Your task to perform on an android device: open the mobile data screen to see how much data has been used Image 0: 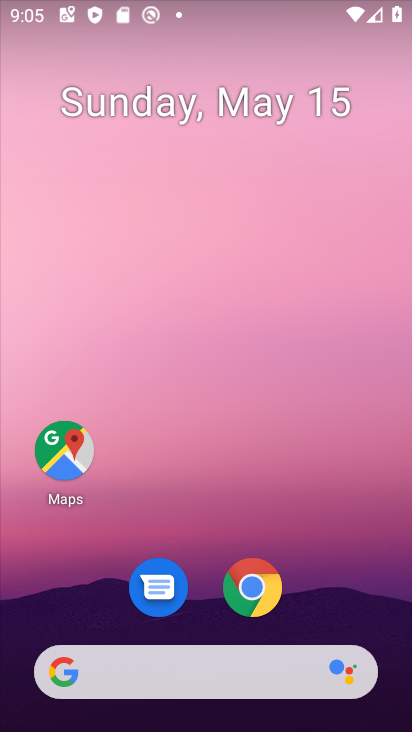
Step 0: drag from (386, 624) to (310, 152)
Your task to perform on an android device: open the mobile data screen to see how much data has been used Image 1: 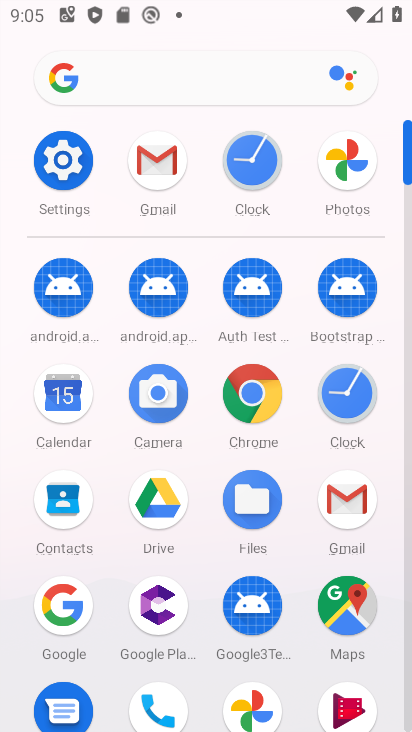
Step 1: click (61, 163)
Your task to perform on an android device: open the mobile data screen to see how much data has been used Image 2: 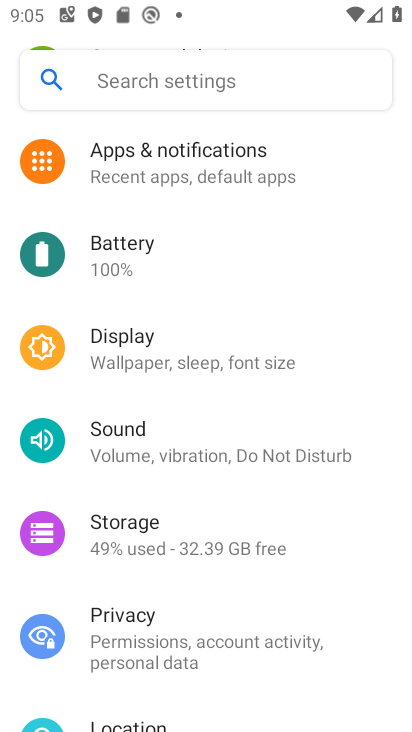
Step 2: drag from (225, 168) to (227, 498)
Your task to perform on an android device: open the mobile data screen to see how much data has been used Image 3: 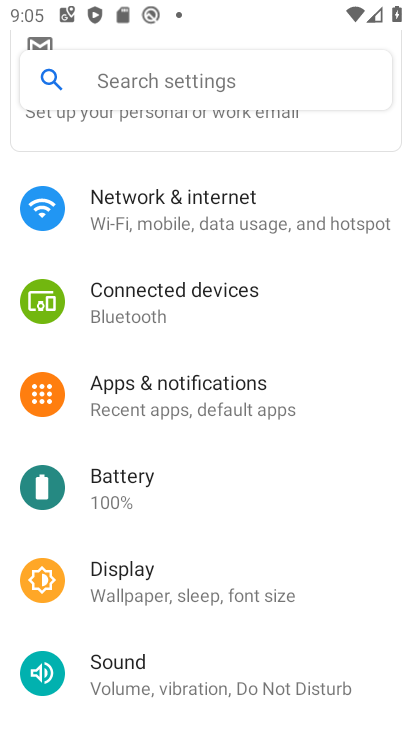
Step 3: click (223, 248)
Your task to perform on an android device: open the mobile data screen to see how much data has been used Image 4: 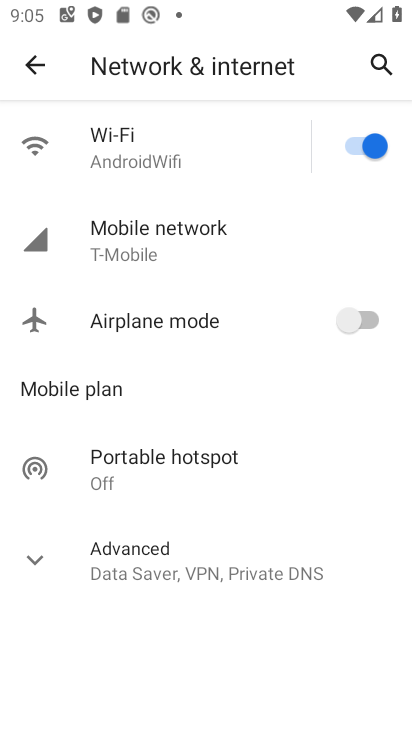
Step 4: click (223, 248)
Your task to perform on an android device: open the mobile data screen to see how much data has been used Image 5: 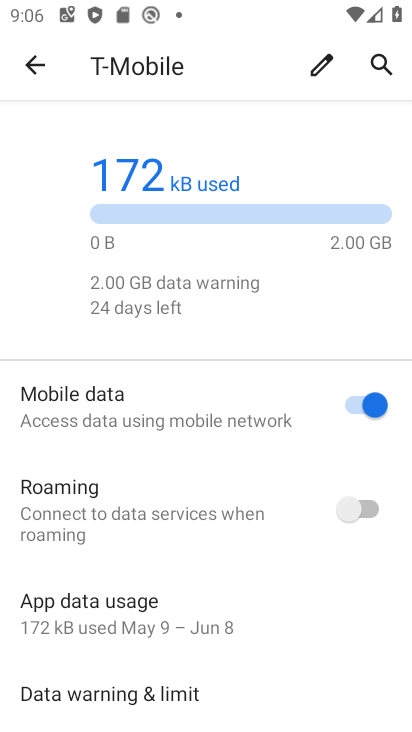
Step 5: task complete